Your task to perform on an android device: toggle translation in the chrome app Image 0: 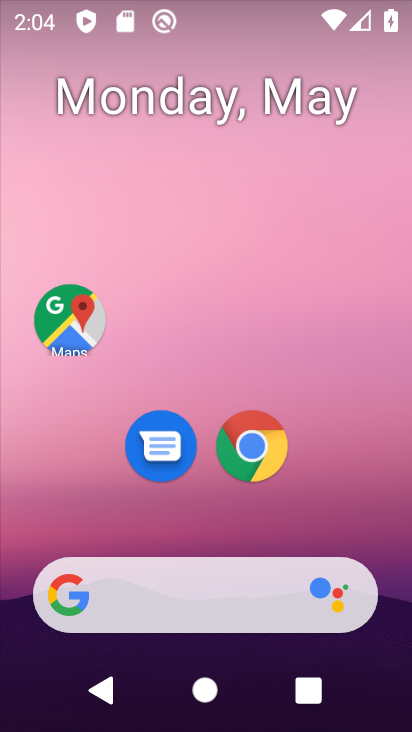
Step 0: drag from (320, 497) to (332, 175)
Your task to perform on an android device: toggle translation in the chrome app Image 1: 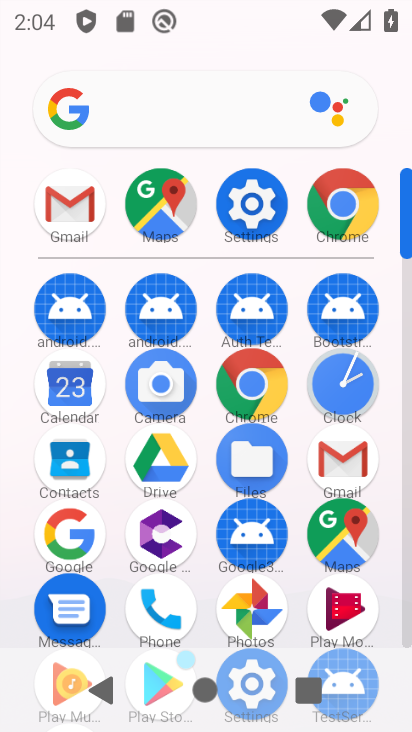
Step 1: click (259, 394)
Your task to perform on an android device: toggle translation in the chrome app Image 2: 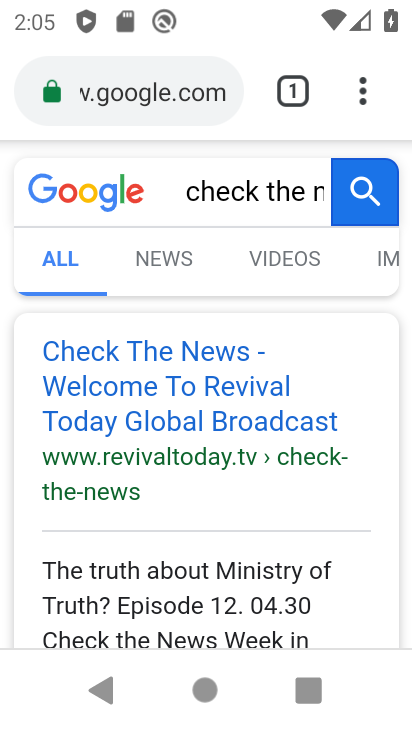
Step 2: click (175, 87)
Your task to perform on an android device: toggle translation in the chrome app Image 3: 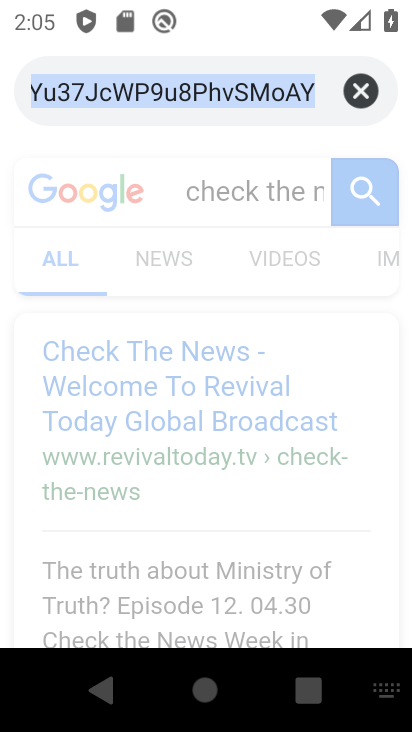
Step 3: click (343, 85)
Your task to perform on an android device: toggle translation in the chrome app Image 4: 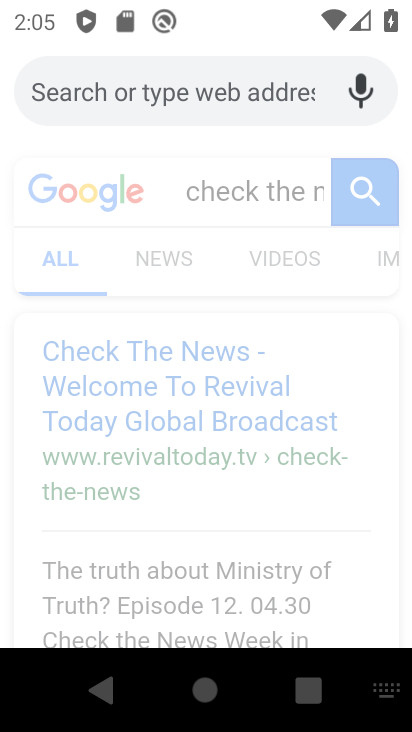
Step 4: click (187, 229)
Your task to perform on an android device: toggle translation in the chrome app Image 5: 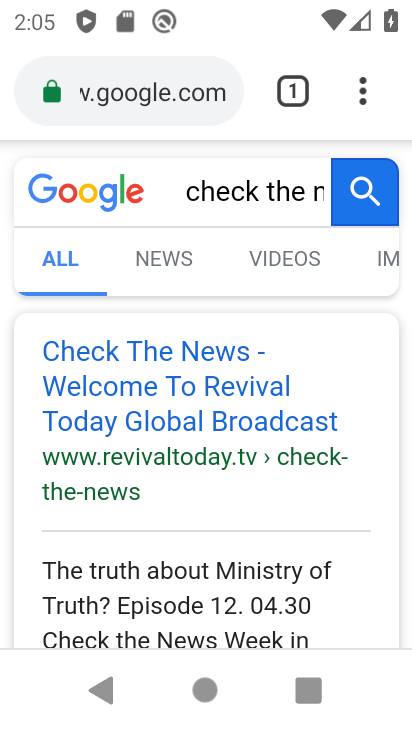
Step 5: drag from (373, 108) to (165, 470)
Your task to perform on an android device: toggle translation in the chrome app Image 6: 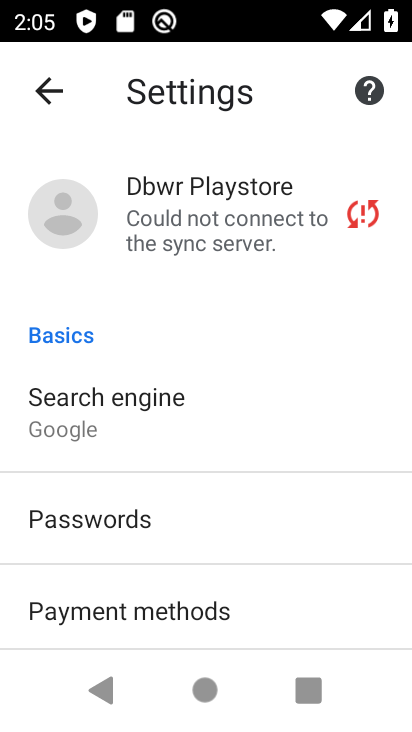
Step 6: drag from (255, 569) to (353, 235)
Your task to perform on an android device: toggle translation in the chrome app Image 7: 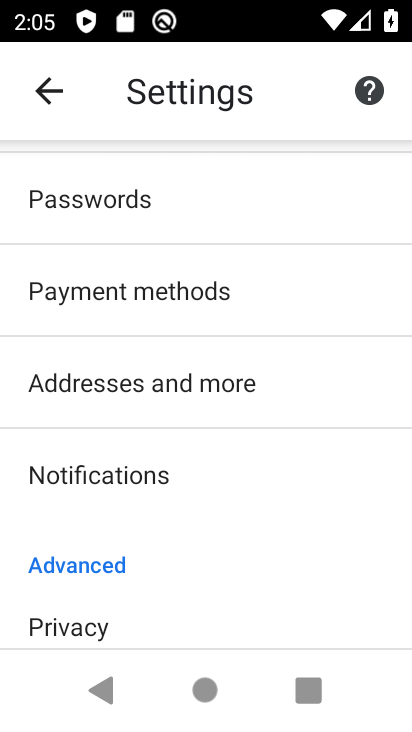
Step 7: drag from (281, 568) to (311, 218)
Your task to perform on an android device: toggle translation in the chrome app Image 8: 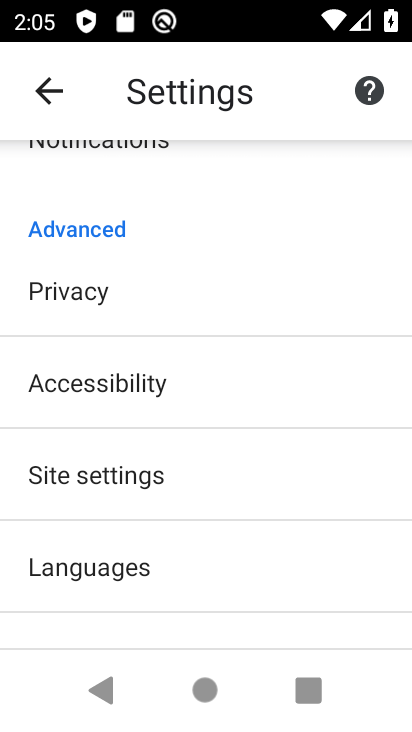
Step 8: drag from (225, 571) to (259, 236)
Your task to perform on an android device: toggle translation in the chrome app Image 9: 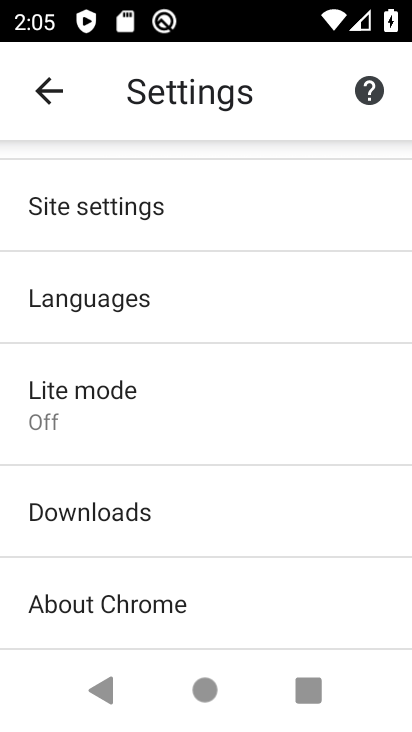
Step 9: click (137, 293)
Your task to perform on an android device: toggle translation in the chrome app Image 10: 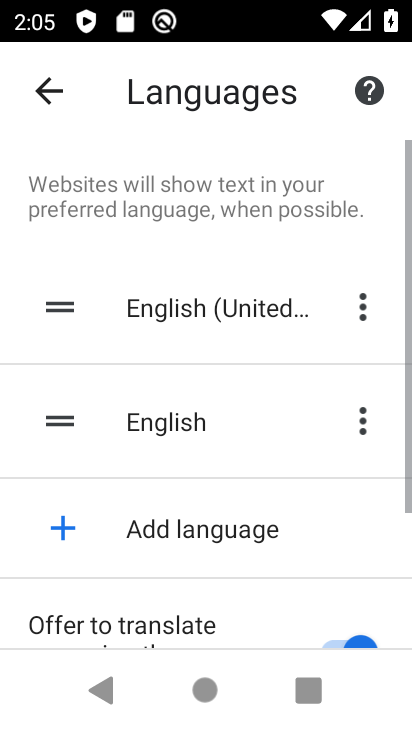
Step 10: drag from (343, 567) to (354, 258)
Your task to perform on an android device: toggle translation in the chrome app Image 11: 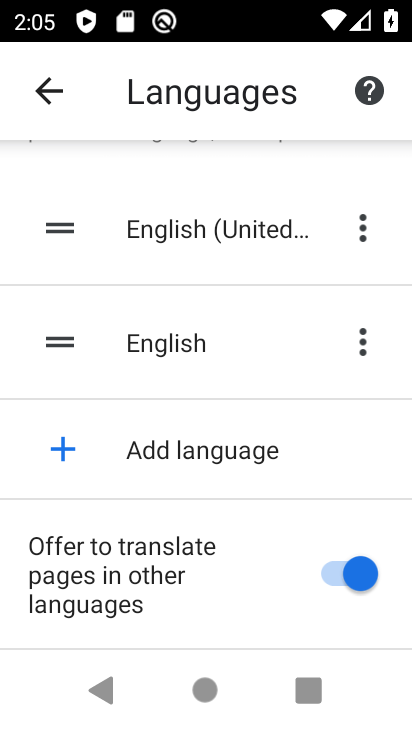
Step 11: click (345, 565)
Your task to perform on an android device: toggle translation in the chrome app Image 12: 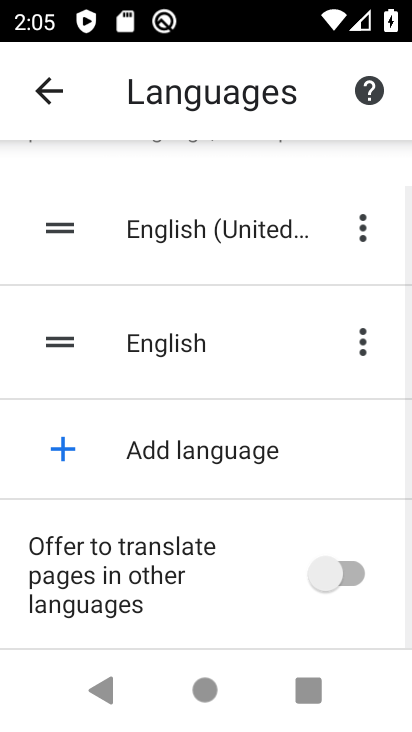
Step 12: task complete